Your task to perform on an android device: create a new album in the google photos Image 0: 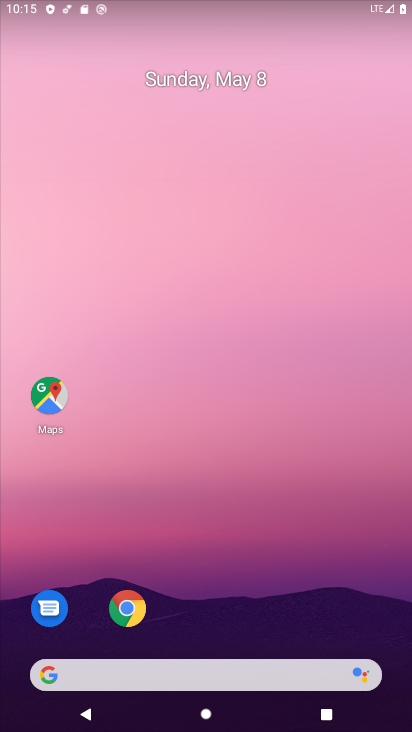
Step 0: drag from (142, 634) to (156, 352)
Your task to perform on an android device: create a new album in the google photos Image 1: 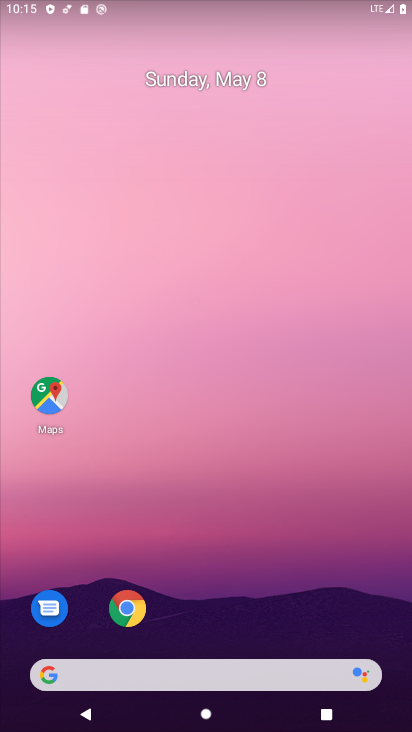
Step 1: drag from (136, 641) to (163, 156)
Your task to perform on an android device: create a new album in the google photos Image 2: 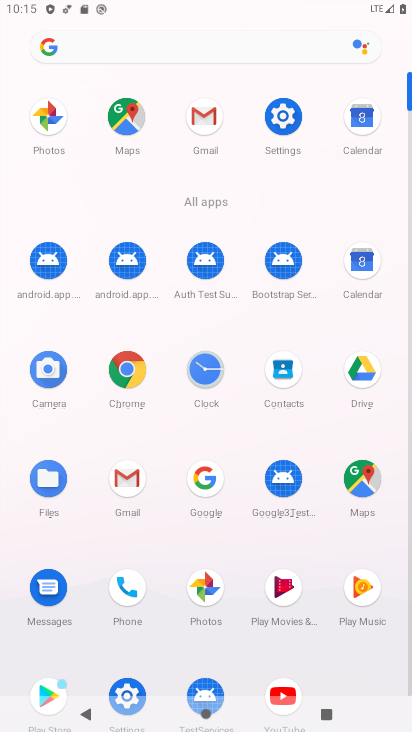
Step 2: click (200, 590)
Your task to perform on an android device: create a new album in the google photos Image 3: 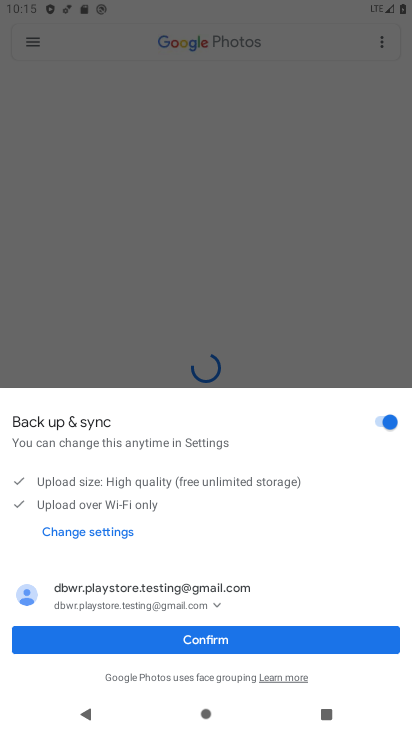
Step 3: click (202, 641)
Your task to perform on an android device: create a new album in the google photos Image 4: 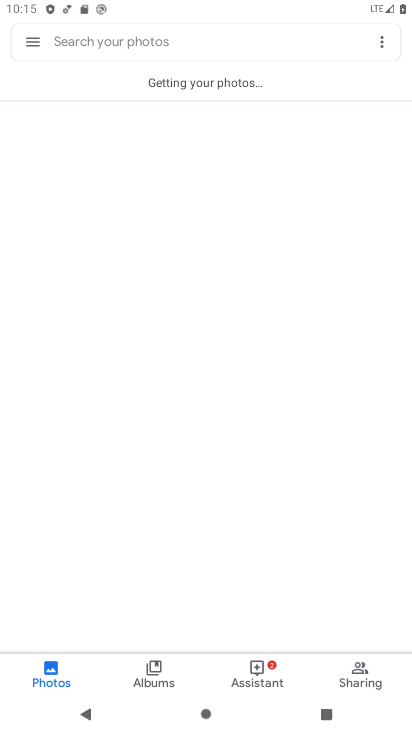
Step 4: click (141, 678)
Your task to perform on an android device: create a new album in the google photos Image 5: 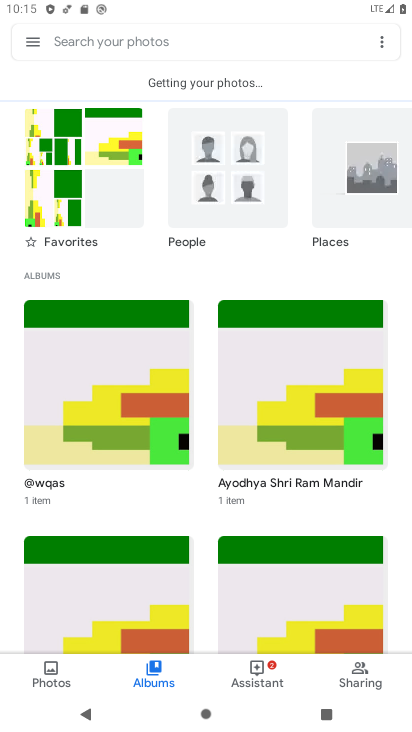
Step 5: click (380, 44)
Your task to perform on an android device: create a new album in the google photos Image 6: 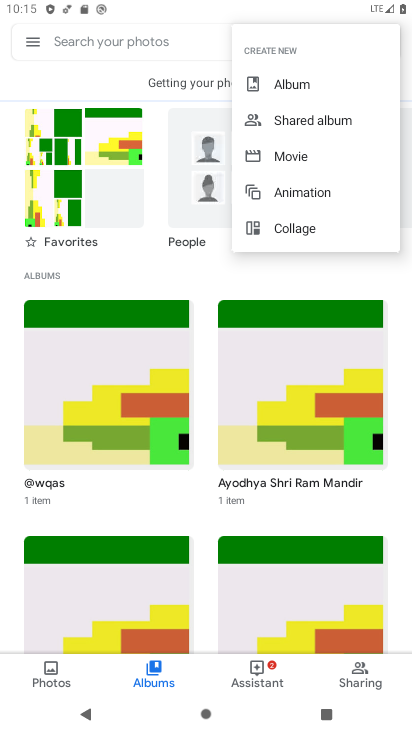
Step 6: click (290, 86)
Your task to perform on an android device: create a new album in the google photos Image 7: 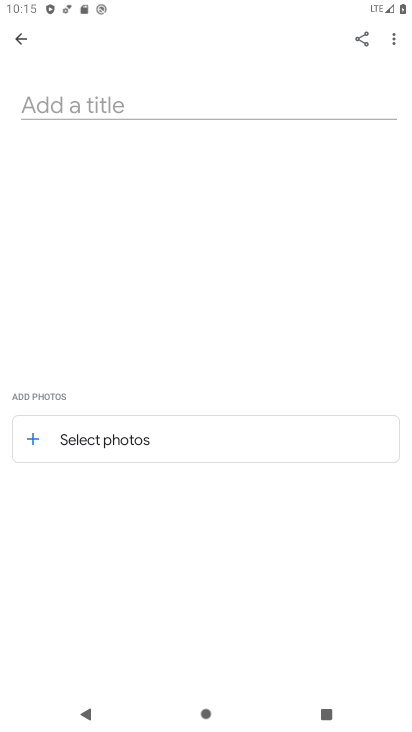
Step 7: click (59, 444)
Your task to perform on an android device: create a new album in the google photos Image 8: 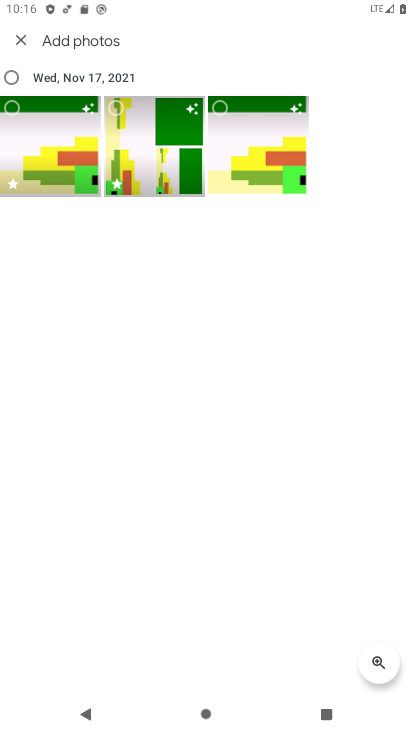
Step 8: click (4, 103)
Your task to perform on an android device: create a new album in the google photos Image 9: 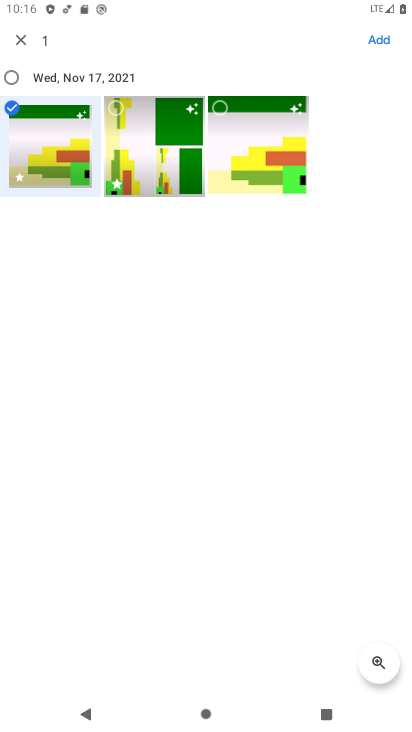
Step 9: click (365, 39)
Your task to perform on an android device: create a new album in the google photos Image 10: 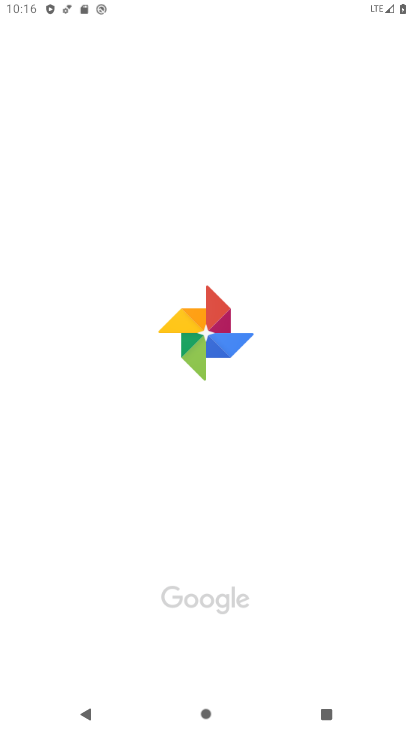
Step 10: click (53, 105)
Your task to perform on an android device: create a new album in the google photos Image 11: 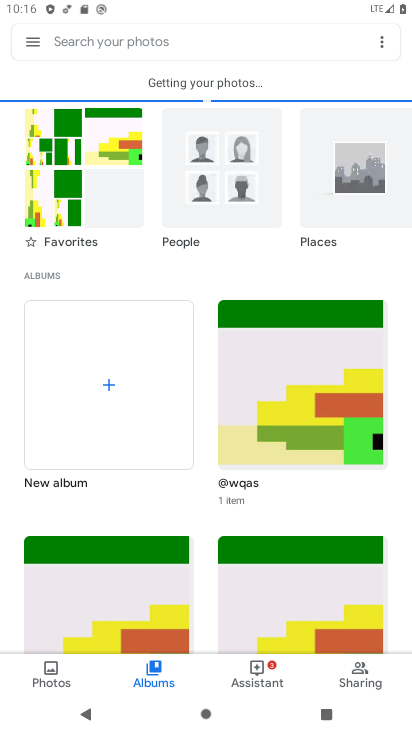
Step 11: click (111, 384)
Your task to perform on an android device: create a new album in the google photos Image 12: 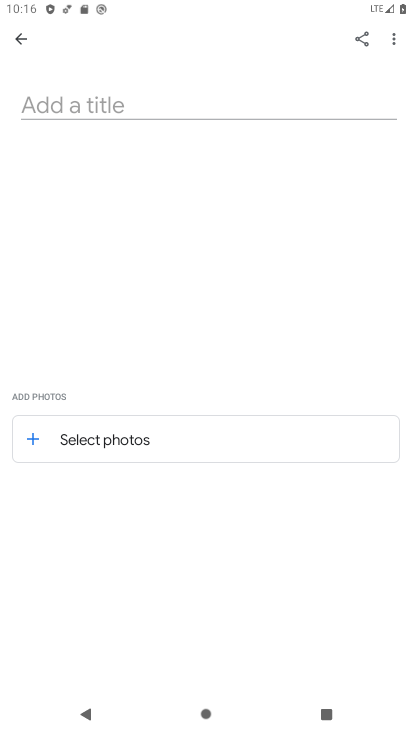
Step 12: click (78, 95)
Your task to perform on an android device: create a new album in the google photos Image 13: 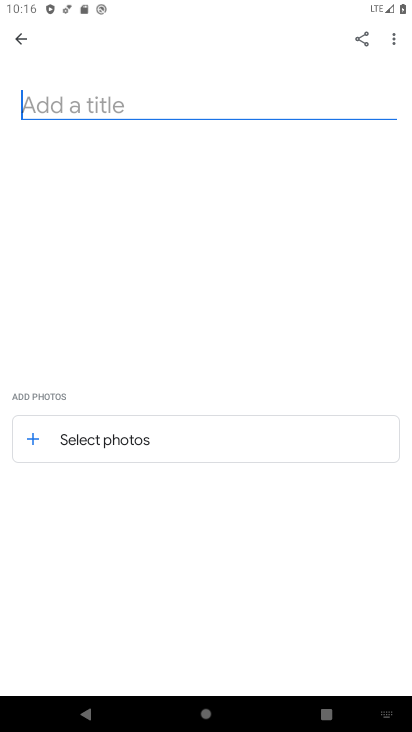
Step 13: type "dfd"
Your task to perform on an android device: create a new album in the google photos Image 14: 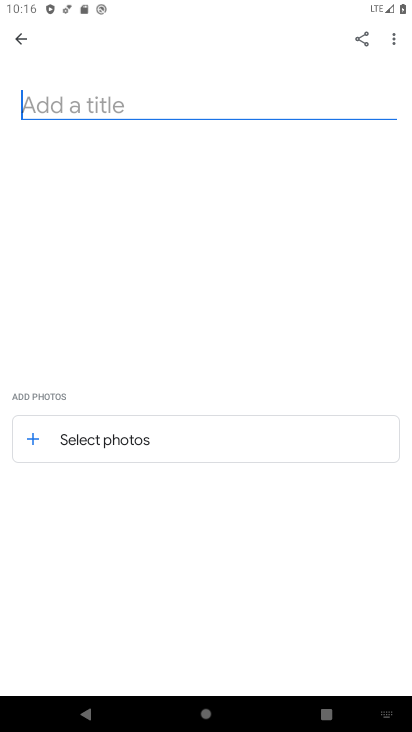
Step 14: click (157, 446)
Your task to perform on an android device: create a new album in the google photos Image 15: 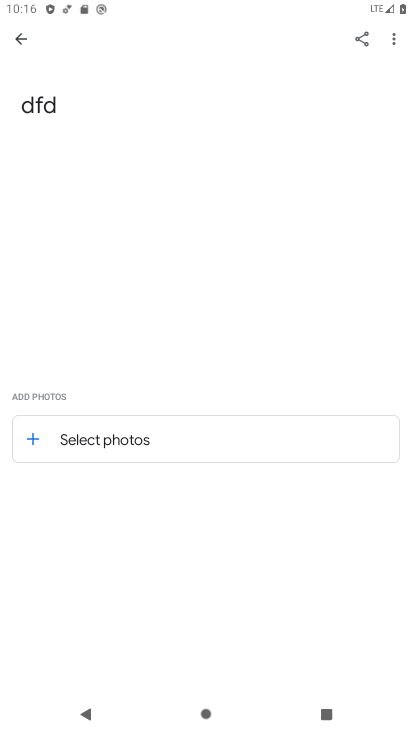
Step 15: click (39, 438)
Your task to perform on an android device: create a new album in the google photos Image 16: 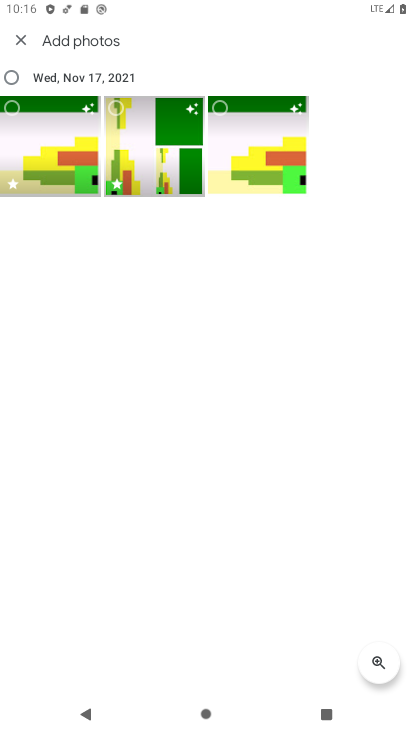
Step 16: click (56, 149)
Your task to perform on an android device: create a new album in the google photos Image 17: 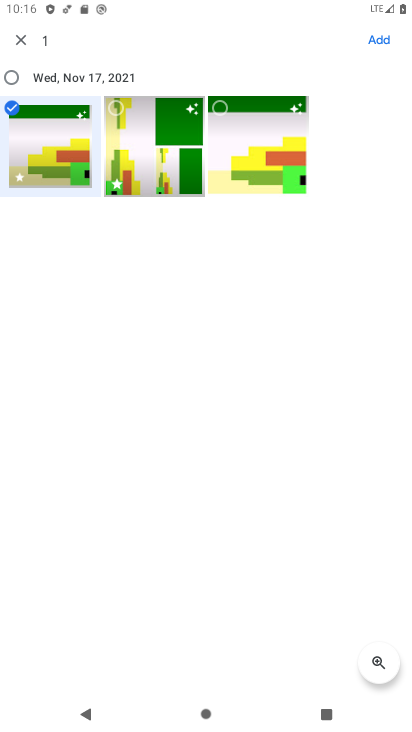
Step 17: click (382, 46)
Your task to perform on an android device: create a new album in the google photos Image 18: 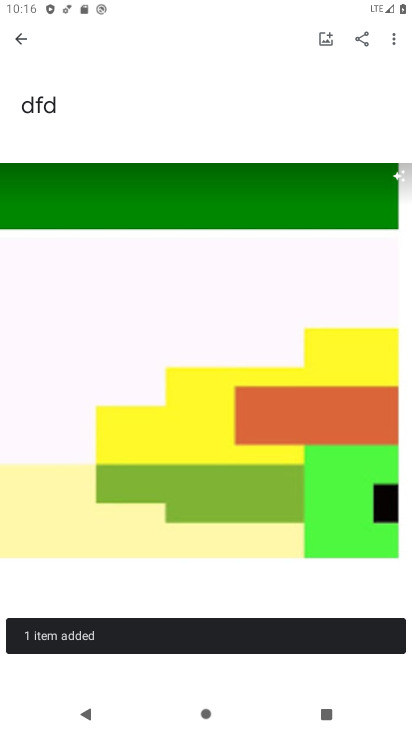
Step 18: task complete